Your task to perform on an android device: snooze an email in the gmail app Image 0: 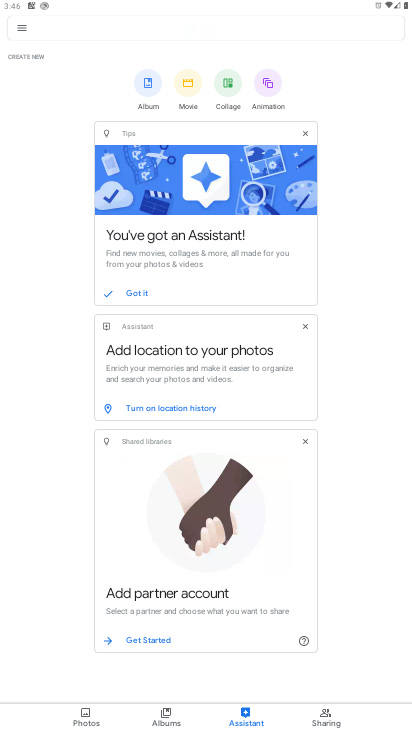
Step 0: press home button
Your task to perform on an android device: snooze an email in the gmail app Image 1: 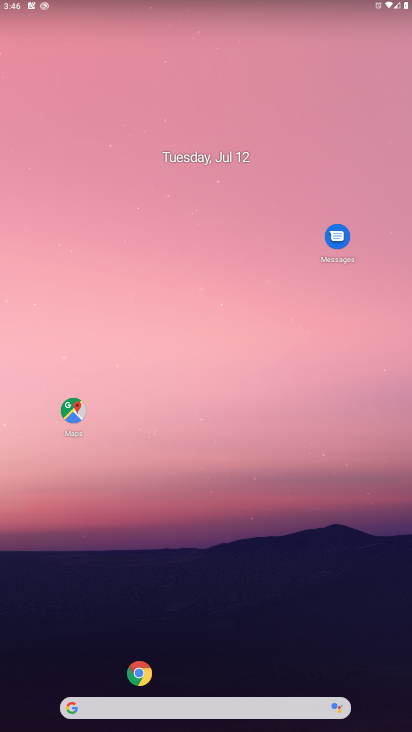
Step 1: drag from (73, 388) to (144, 73)
Your task to perform on an android device: snooze an email in the gmail app Image 2: 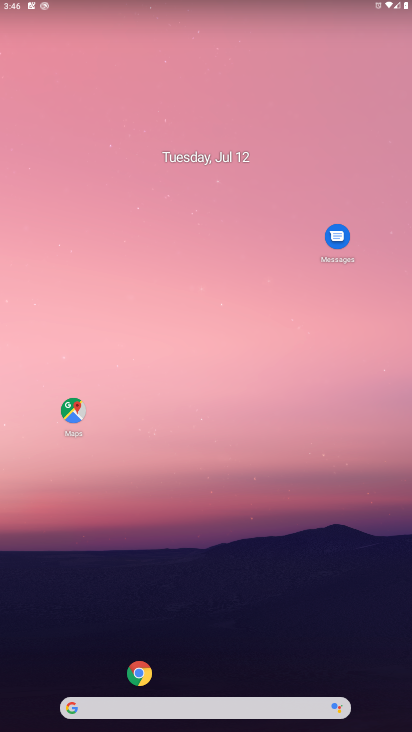
Step 2: click (157, 178)
Your task to perform on an android device: snooze an email in the gmail app Image 3: 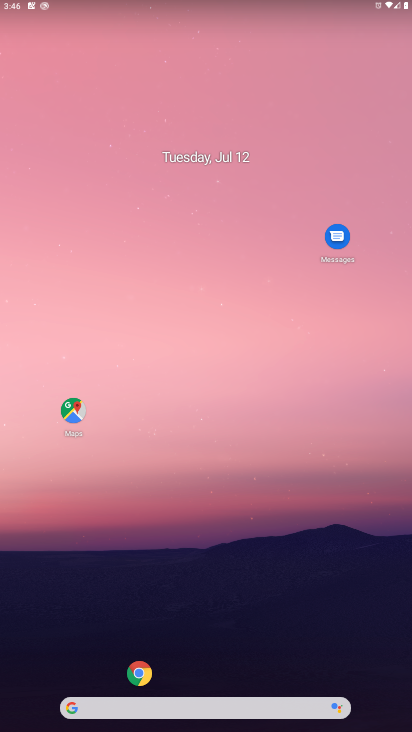
Step 3: drag from (77, 603) to (260, 14)
Your task to perform on an android device: snooze an email in the gmail app Image 4: 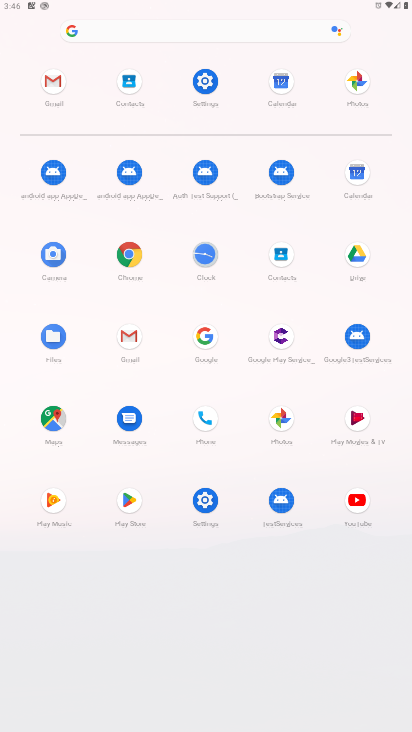
Step 4: click (129, 327)
Your task to perform on an android device: snooze an email in the gmail app Image 5: 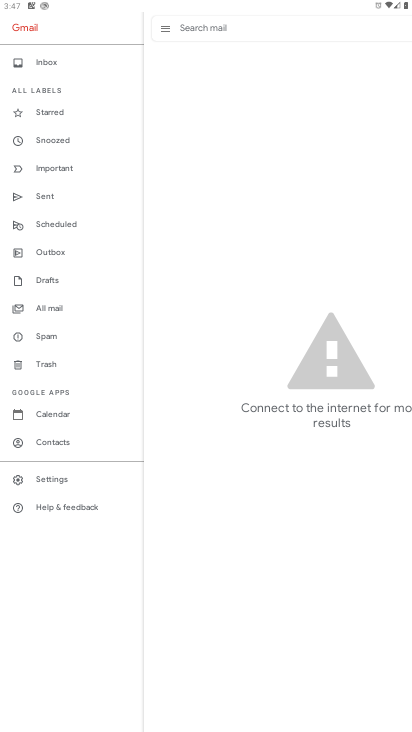
Step 5: click (58, 141)
Your task to perform on an android device: snooze an email in the gmail app Image 6: 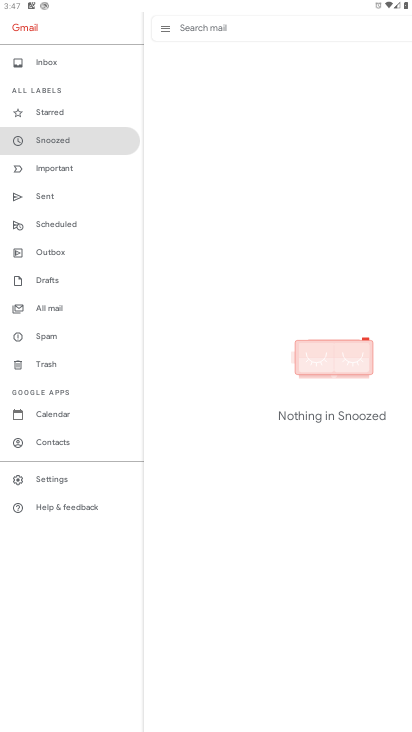
Step 6: task complete